Your task to perform on an android device: change the clock style Image 0: 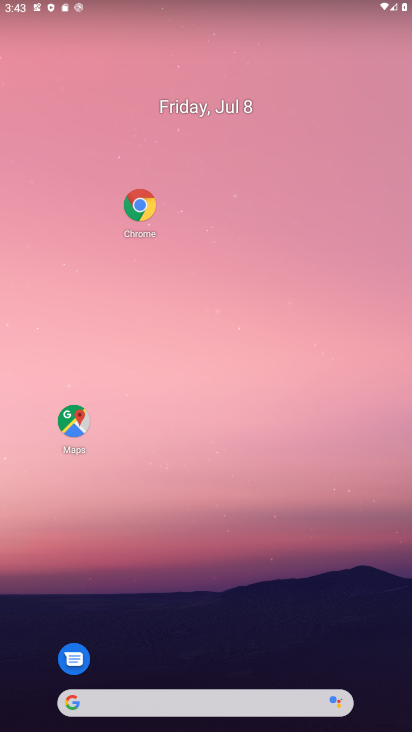
Step 0: drag from (185, 636) to (219, 129)
Your task to perform on an android device: change the clock style Image 1: 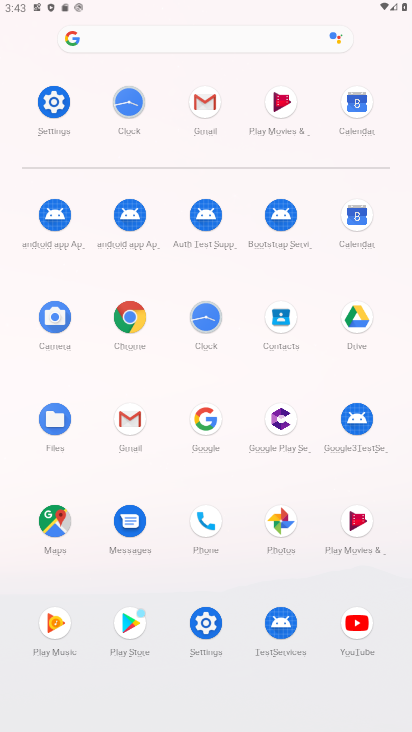
Step 1: click (128, 104)
Your task to perform on an android device: change the clock style Image 2: 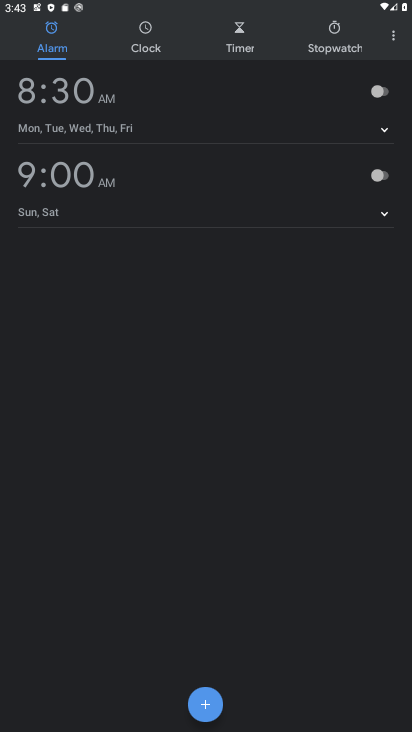
Step 2: click (395, 41)
Your task to perform on an android device: change the clock style Image 3: 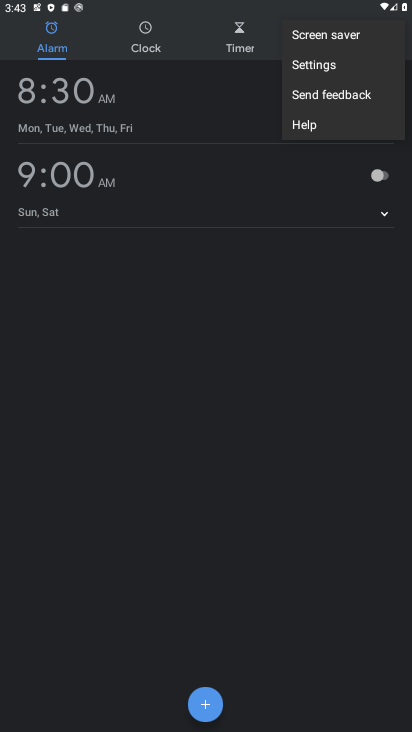
Step 3: click (359, 66)
Your task to perform on an android device: change the clock style Image 4: 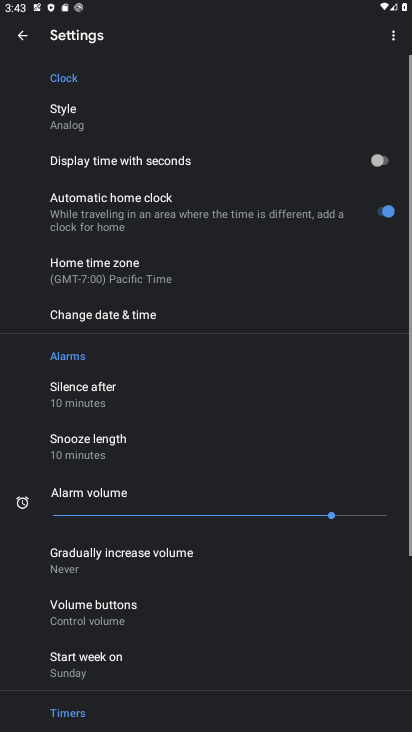
Step 4: click (100, 121)
Your task to perform on an android device: change the clock style Image 5: 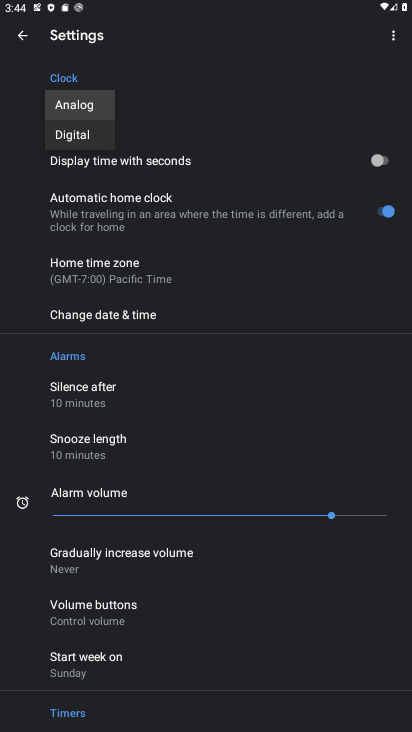
Step 5: click (90, 130)
Your task to perform on an android device: change the clock style Image 6: 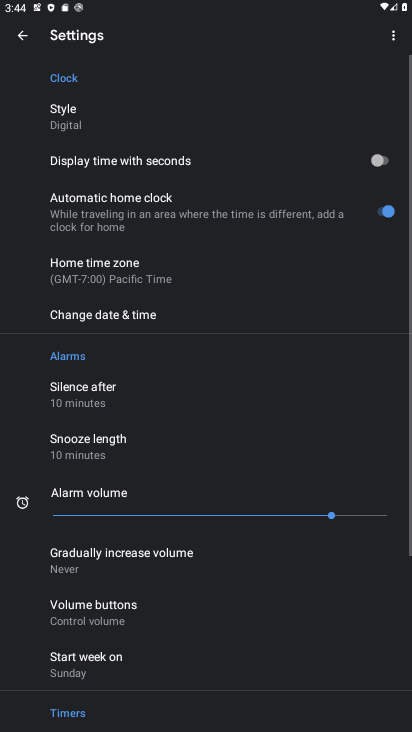
Step 6: task complete